Your task to perform on an android device: When is my next appointment? Image 0: 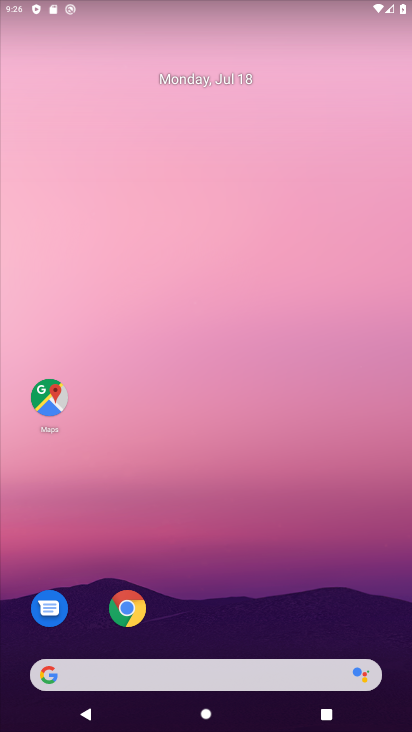
Step 0: drag from (246, 602) to (281, 268)
Your task to perform on an android device: When is my next appointment? Image 1: 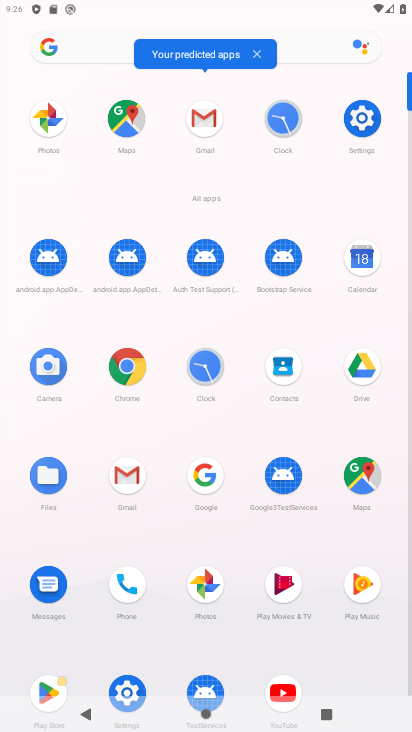
Step 1: click (360, 273)
Your task to perform on an android device: When is my next appointment? Image 2: 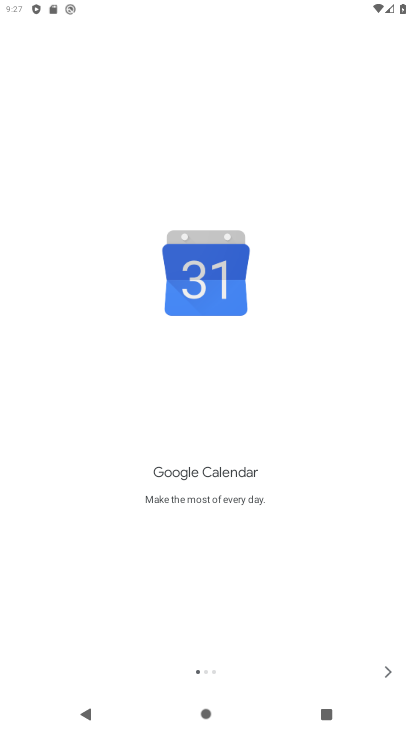
Step 2: click (389, 683)
Your task to perform on an android device: When is my next appointment? Image 3: 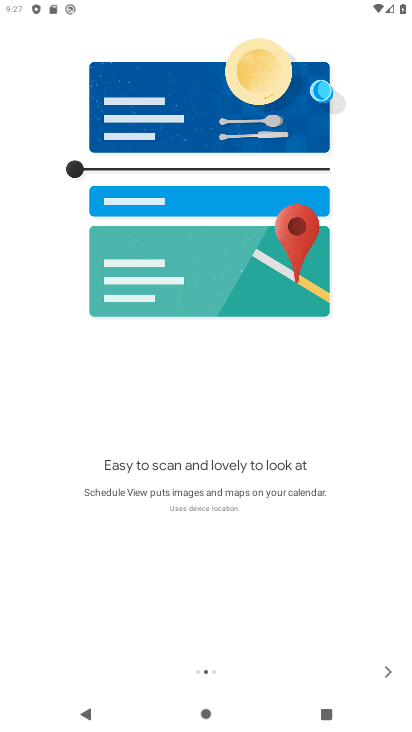
Step 3: click (389, 683)
Your task to perform on an android device: When is my next appointment? Image 4: 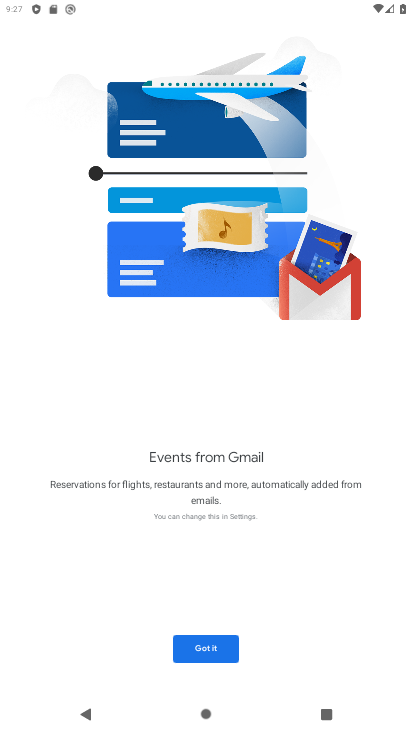
Step 4: click (184, 647)
Your task to perform on an android device: When is my next appointment? Image 5: 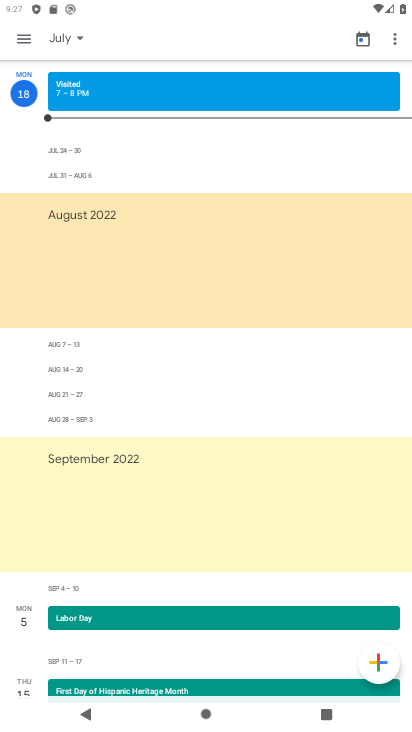
Step 5: click (70, 42)
Your task to perform on an android device: When is my next appointment? Image 6: 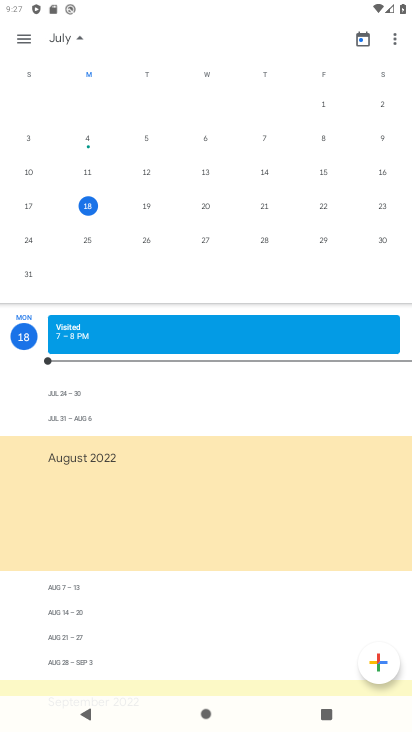
Step 6: click (96, 201)
Your task to perform on an android device: When is my next appointment? Image 7: 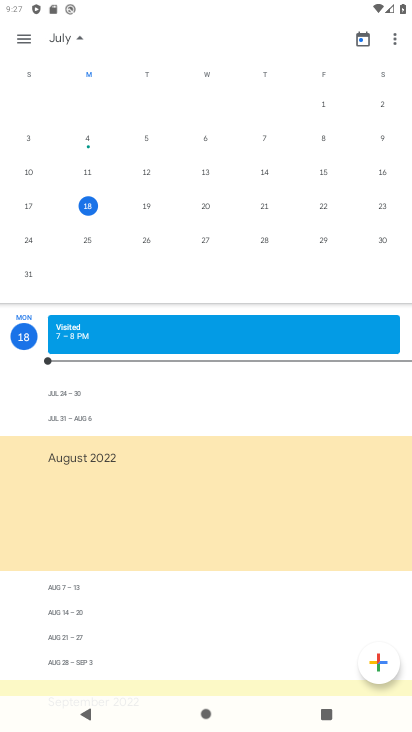
Step 7: task complete